Your task to perform on an android device: star an email in the gmail app Image 0: 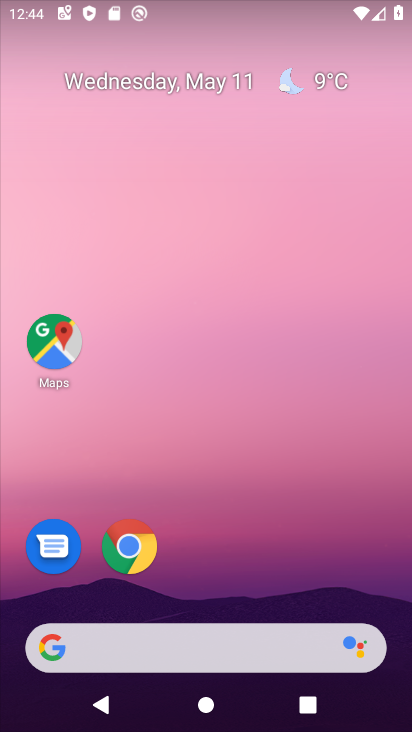
Step 0: drag from (300, 583) to (308, 7)
Your task to perform on an android device: star an email in the gmail app Image 1: 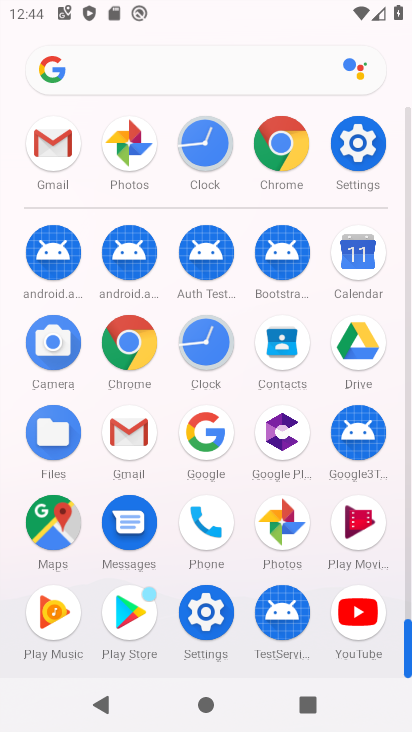
Step 1: click (142, 437)
Your task to perform on an android device: star an email in the gmail app Image 2: 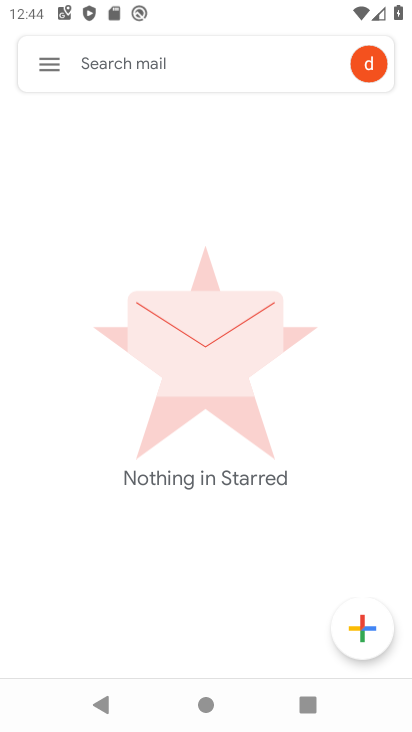
Step 2: task complete